Your task to perform on an android device: change the clock display to show seconds Image 0: 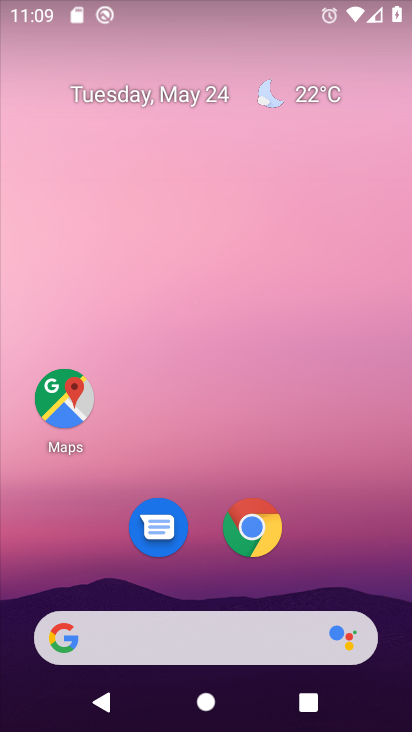
Step 0: drag from (201, 631) to (328, 137)
Your task to perform on an android device: change the clock display to show seconds Image 1: 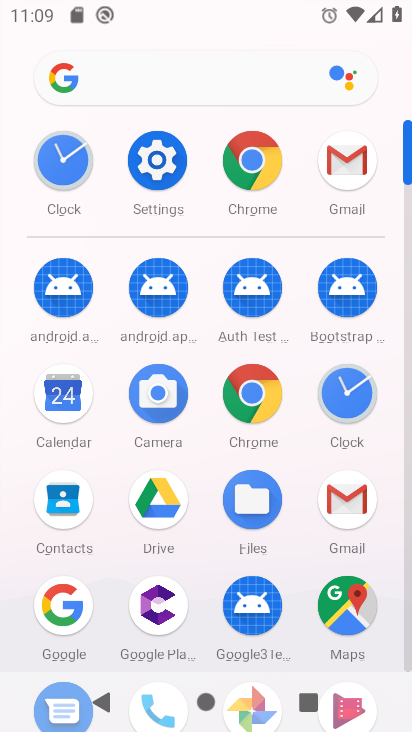
Step 1: click (345, 404)
Your task to perform on an android device: change the clock display to show seconds Image 2: 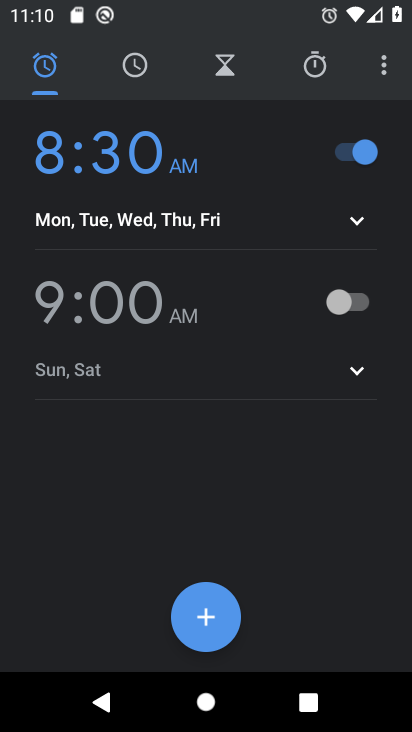
Step 2: click (386, 73)
Your task to perform on an android device: change the clock display to show seconds Image 3: 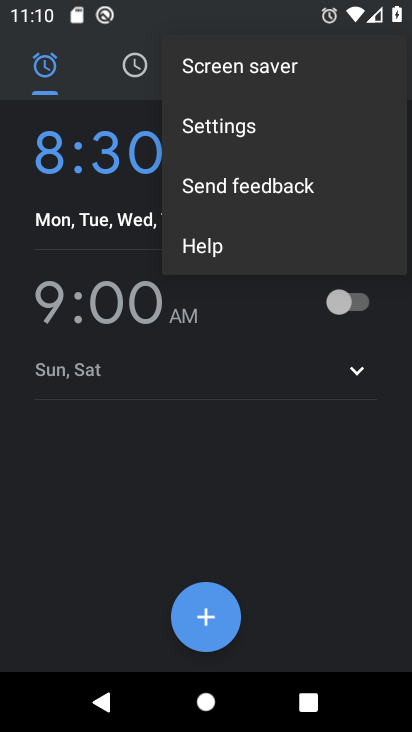
Step 3: click (241, 136)
Your task to perform on an android device: change the clock display to show seconds Image 4: 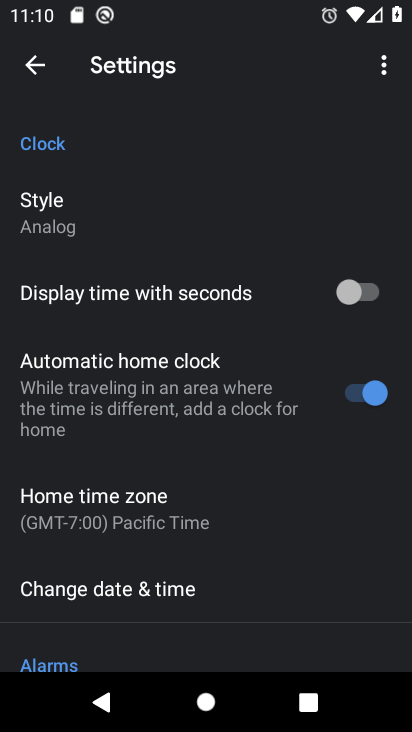
Step 4: click (369, 289)
Your task to perform on an android device: change the clock display to show seconds Image 5: 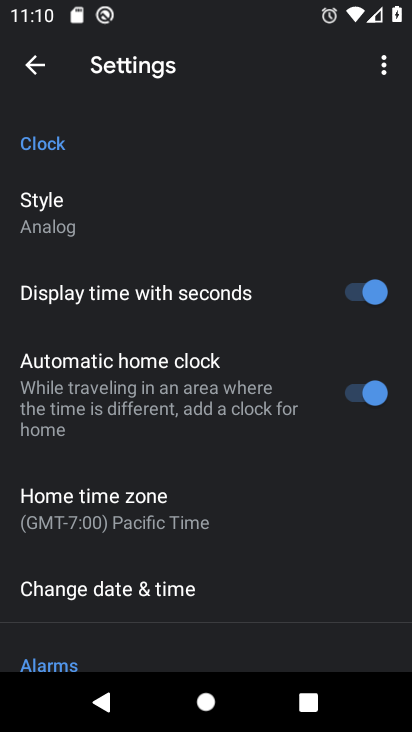
Step 5: task complete